Your task to perform on an android device: toggle notification dots Image 0: 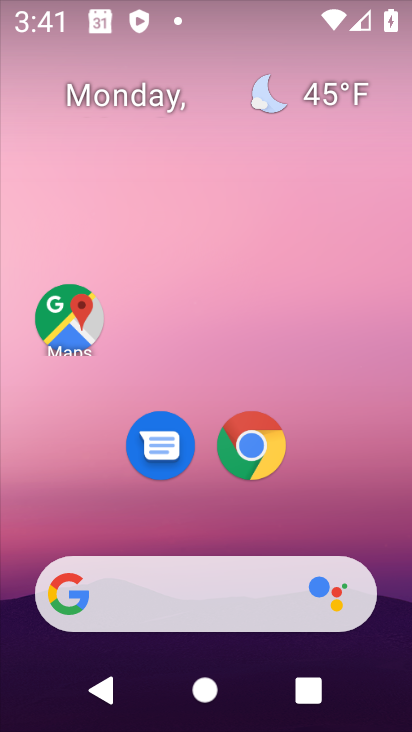
Step 0: drag from (307, 541) to (239, 113)
Your task to perform on an android device: toggle notification dots Image 1: 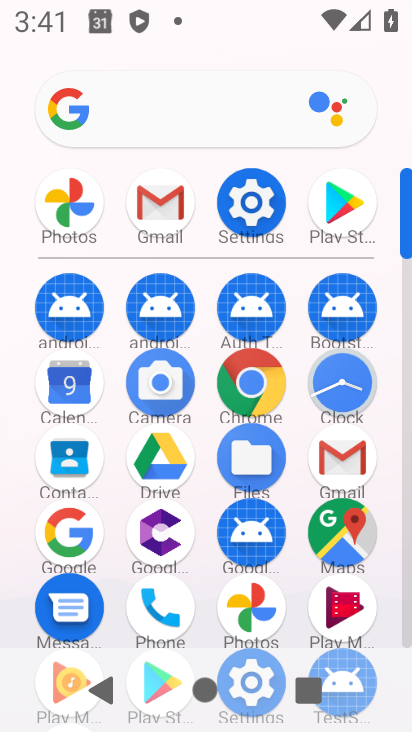
Step 1: click (234, 185)
Your task to perform on an android device: toggle notification dots Image 2: 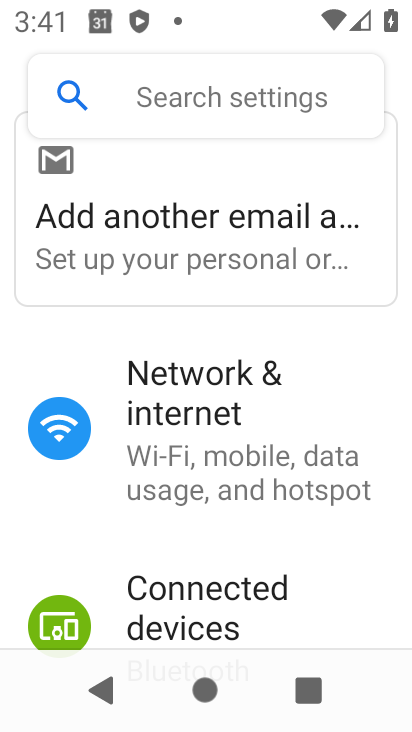
Step 2: drag from (233, 508) to (229, 247)
Your task to perform on an android device: toggle notification dots Image 3: 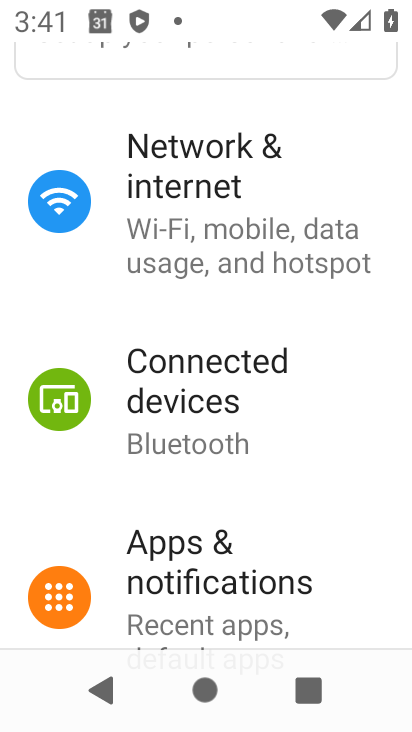
Step 3: click (205, 547)
Your task to perform on an android device: toggle notification dots Image 4: 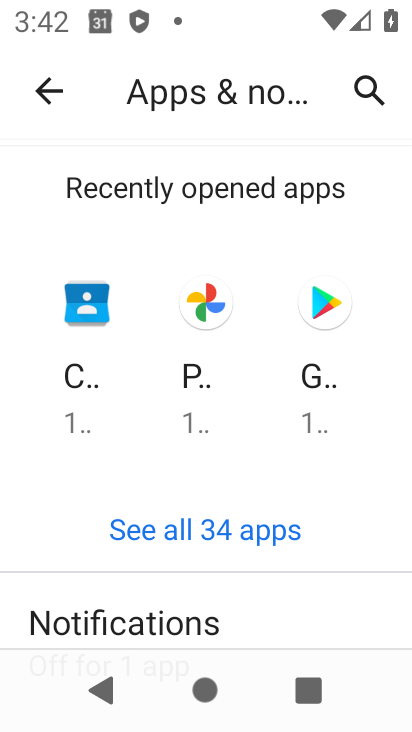
Step 4: drag from (235, 581) to (185, 275)
Your task to perform on an android device: toggle notification dots Image 5: 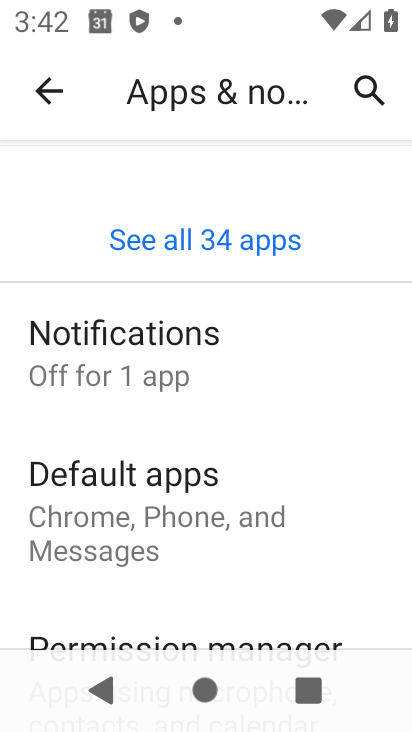
Step 5: click (132, 368)
Your task to perform on an android device: toggle notification dots Image 6: 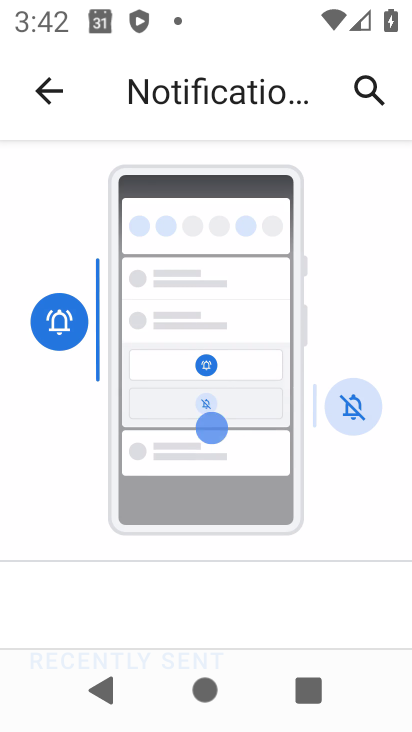
Step 6: drag from (196, 596) to (175, 232)
Your task to perform on an android device: toggle notification dots Image 7: 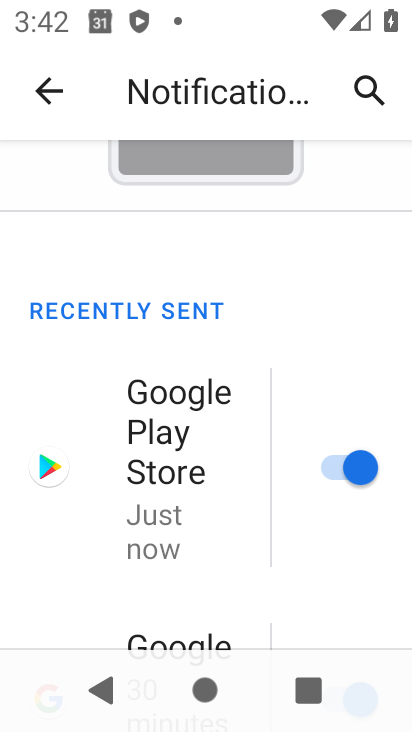
Step 7: drag from (218, 600) to (166, 174)
Your task to perform on an android device: toggle notification dots Image 8: 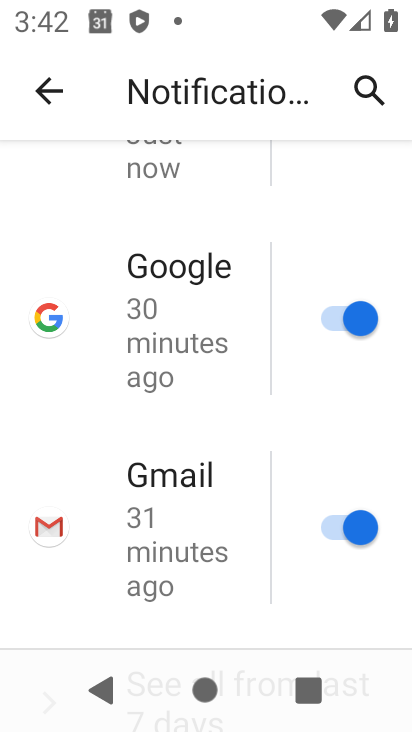
Step 8: drag from (167, 490) to (107, 110)
Your task to perform on an android device: toggle notification dots Image 9: 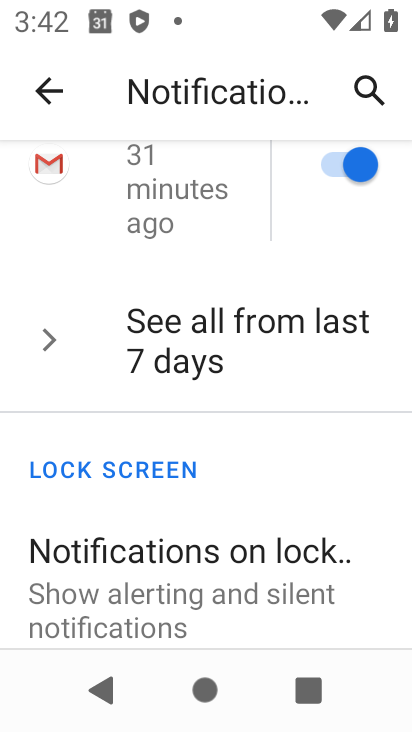
Step 9: drag from (171, 581) to (119, 157)
Your task to perform on an android device: toggle notification dots Image 10: 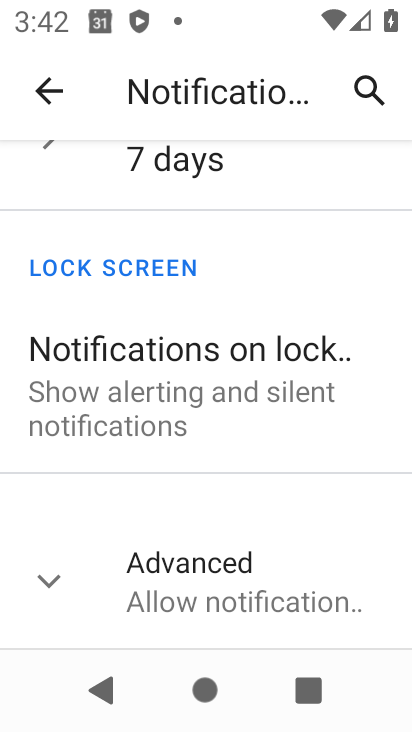
Step 10: click (230, 583)
Your task to perform on an android device: toggle notification dots Image 11: 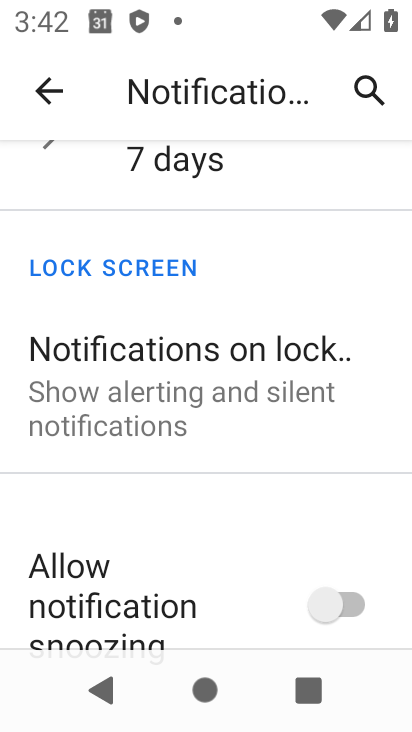
Step 11: drag from (192, 574) to (114, 222)
Your task to perform on an android device: toggle notification dots Image 12: 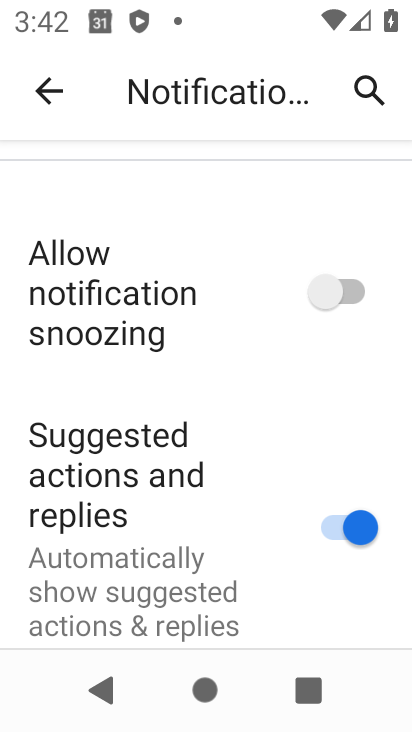
Step 12: drag from (173, 555) to (134, 260)
Your task to perform on an android device: toggle notification dots Image 13: 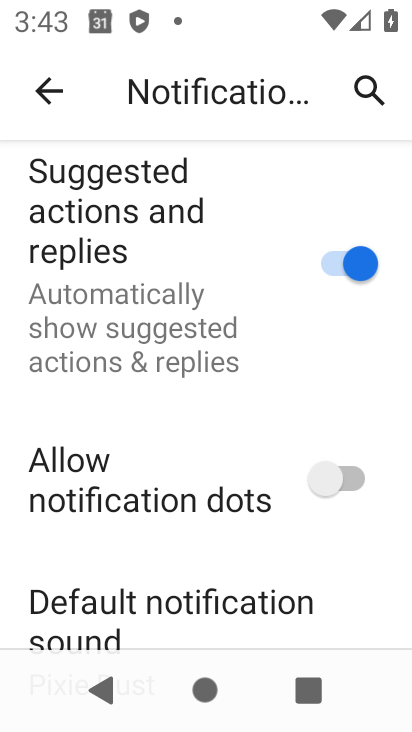
Step 13: click (327, 490)
Your task to perform on an android device: toggle notification dots Image 14: 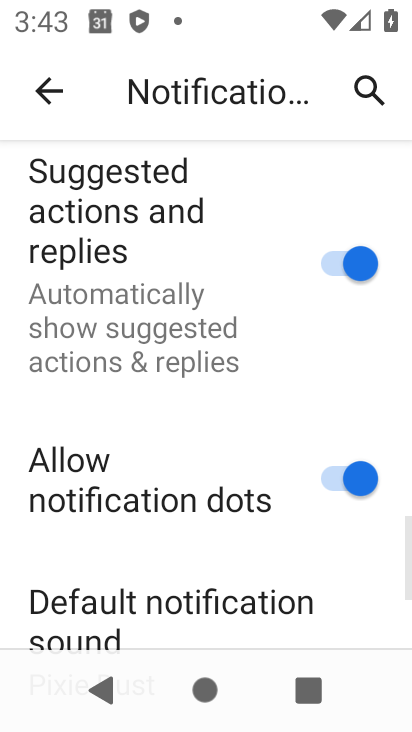
Step 14: task complete